Your task to perform on an android device: set default search engine in the chrome app Image 0: 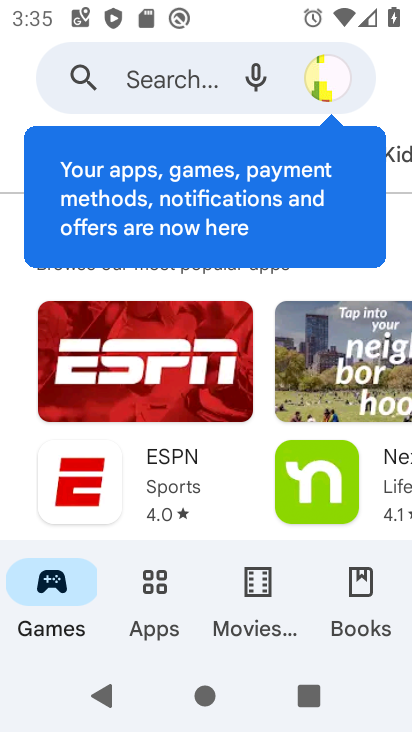
Step 0: press home button
Your task to perform on an android device: set default search engine in the chrome app Image 1: 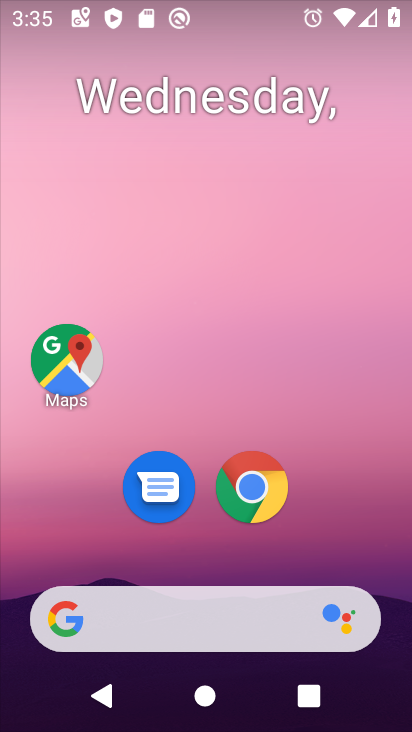
Step 1: drag from (322, 569) to (364, 257)
Your task to perform on an android device: set default search engine in the chrome app Image 2: 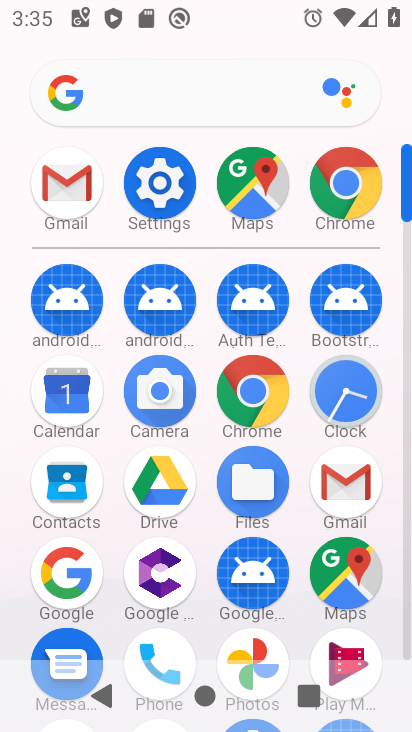
Step 2: click (264, 397)
Your task to perform on an android device: set default search engine in the chrome app Image 3: 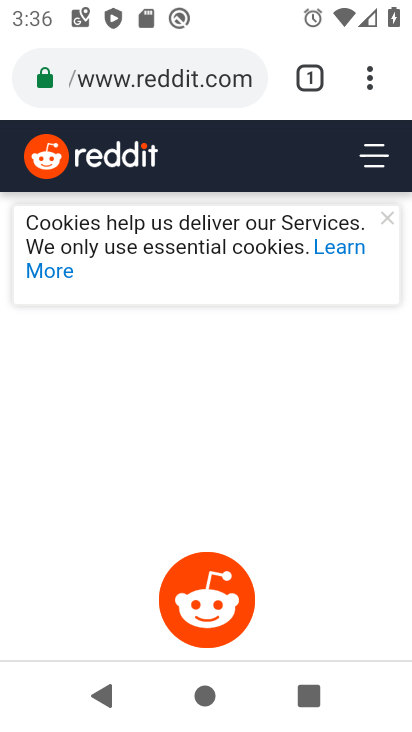
Step 3: click (367, 88)
Your task to perform on an android device: set default search engine in the chrome app Image 4: 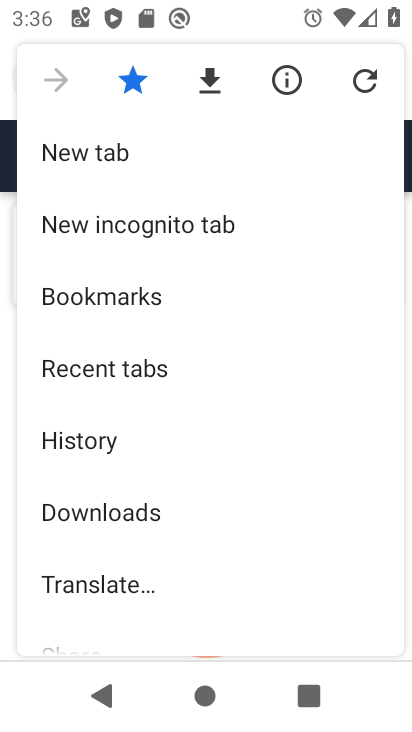
Step 4: drag from (310, 462) to (318, 317)
Your task to perform on an android device: set default search engine in the chrome app Image 5: 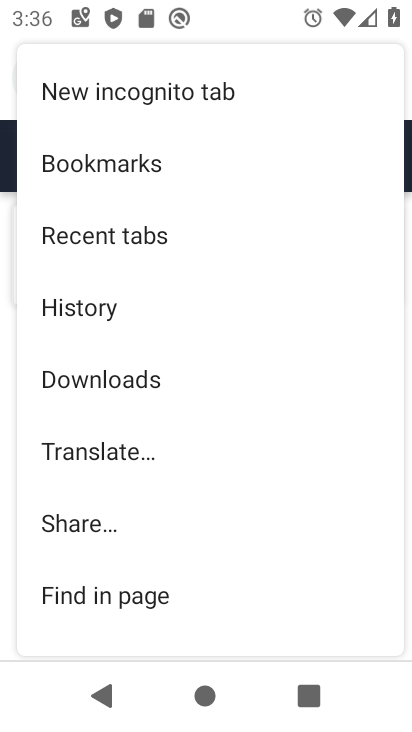
Step 5: drag from (305, 526) to (305, 442)
Your task to perform on an android device: set default search engine in the chrome app Image 6: 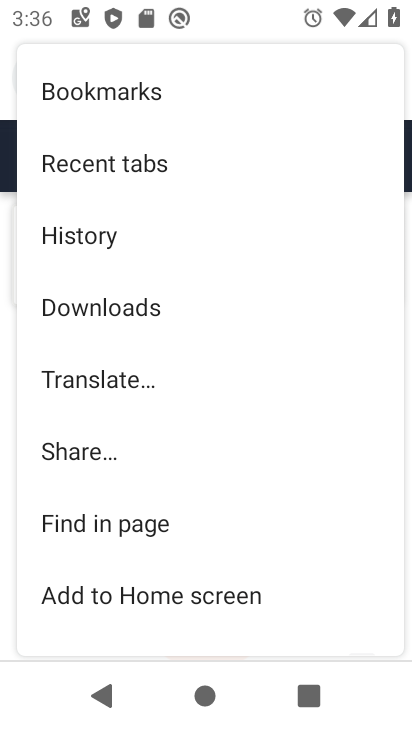
Step 6: drag from (312, 552) to (316, 453)
Your task to perform on an android device: set default search engine in the chrome app Image 7: 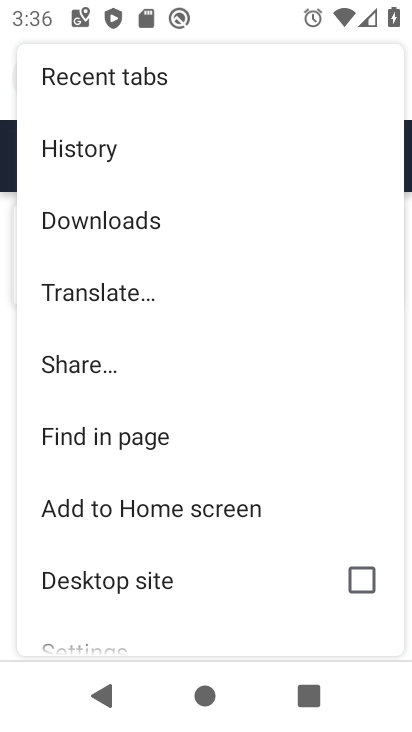
Step 7: drag from (293, 567) to (299, 420)
Your task to perform on an android device: set default search engine in the chrome app Image 8: 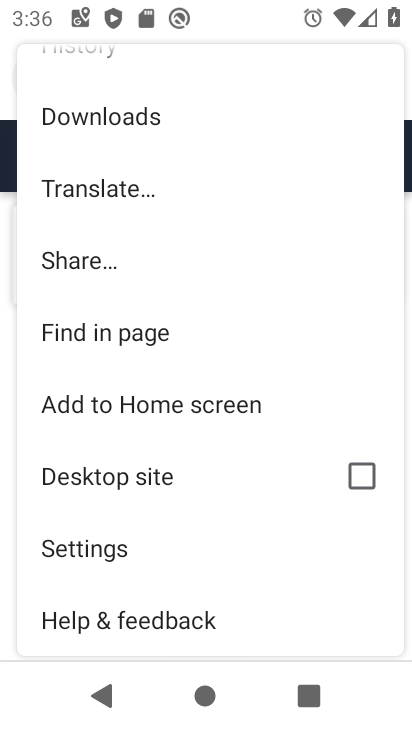
Step 8: click (138, 559)
Your task to perform on an android device: set default search engine in the chrome app Image 9: 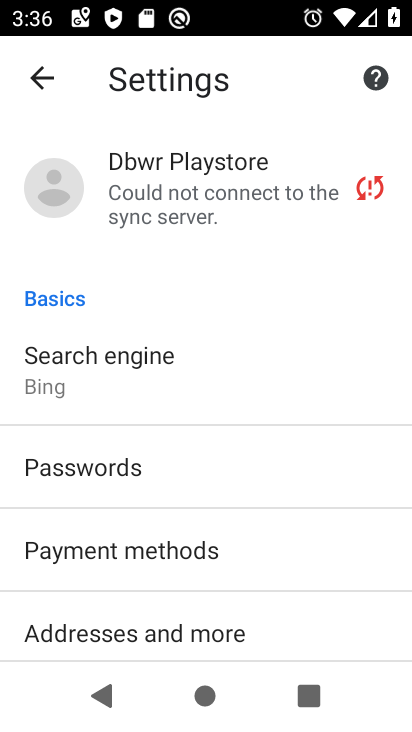
Step 9: click (155, 380)
Your task to perform on an android device: set default search engine in the chrome app Image 10: 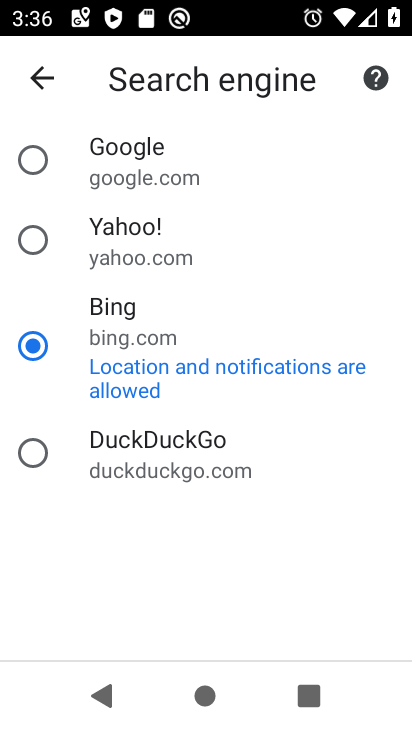
Step 10: click (126, 157)
Your task to perform on an android device: set default search engine in the chrome app Image 11: 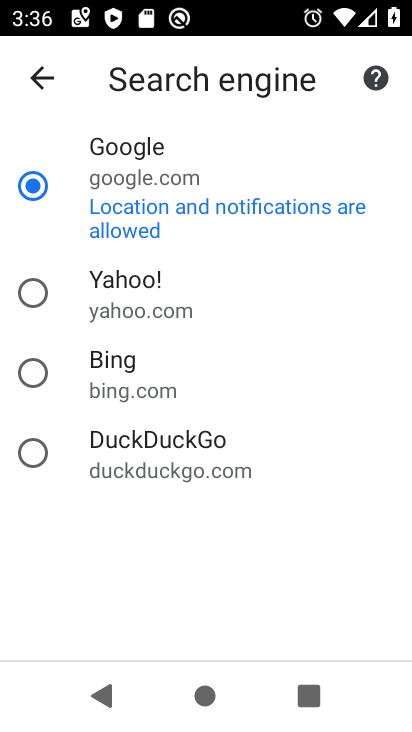
Step 11: task complete